Your task to perform on an android device: Go to Wikipedia Image 0: 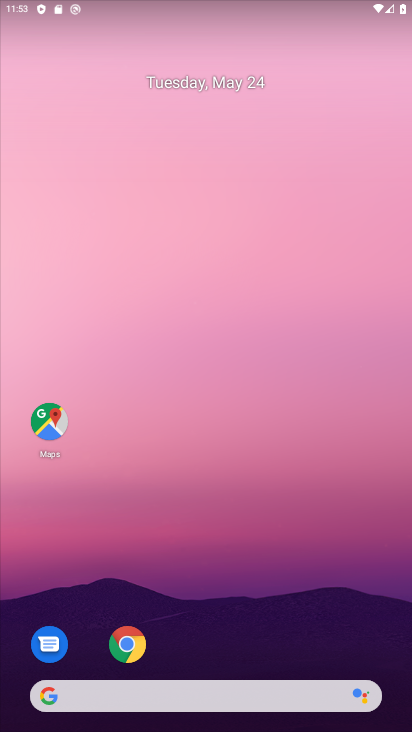
Step 0: drag from (281, 52) to (314, 111)
Your task to perform on an android device: Go to Wikipedia Image 1: 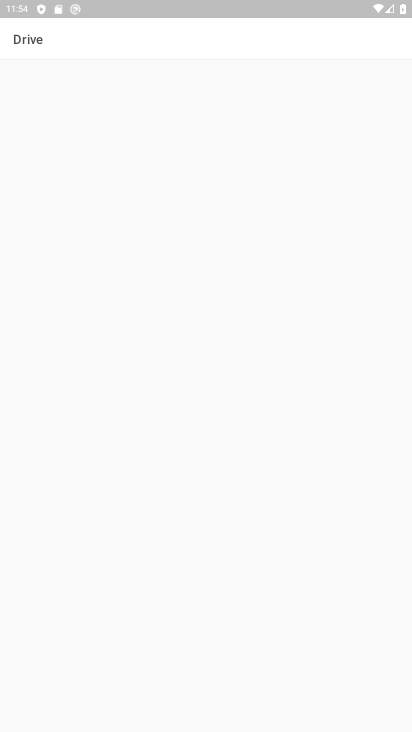
Step 1: press home button
Your task to perform on an android device: Go to Wikipedia Image 2: 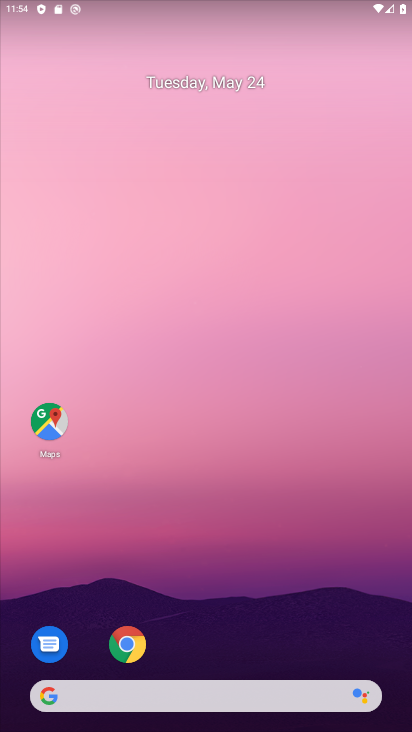
Step 2: click (125, 659)
Your task to perform on an android device: Go to Wikipedia Image 3: 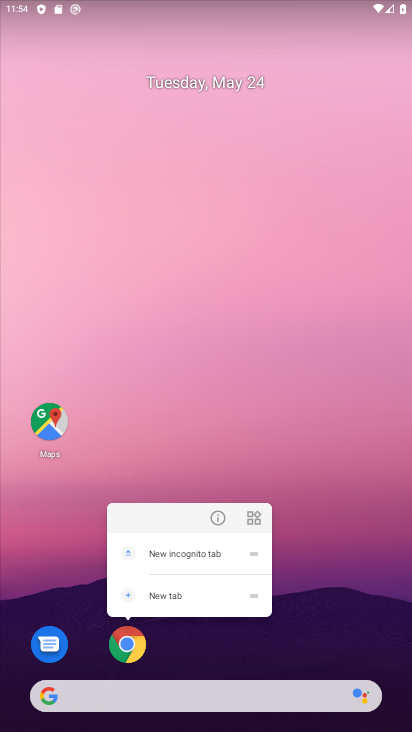
Step 3: click (129, 653)
Your task to perform on an android device: Go to Wikipedia Image 4: 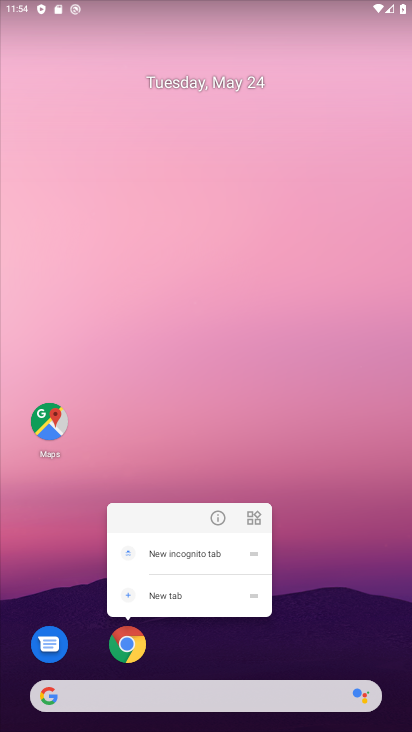
Step 4: click (131, 639)
Your task to perform on an android device: Go to Wikipedia Image 5: 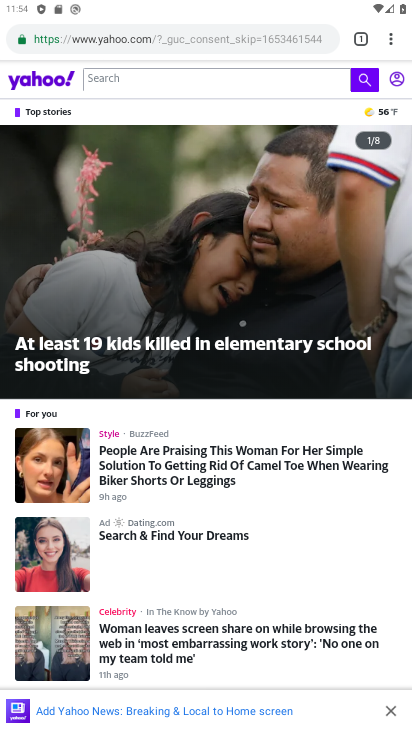
Step 5: drag from (400, 40) to (359, 70)
Your task to perform on an android device: Go to Wikipedia Image 6: 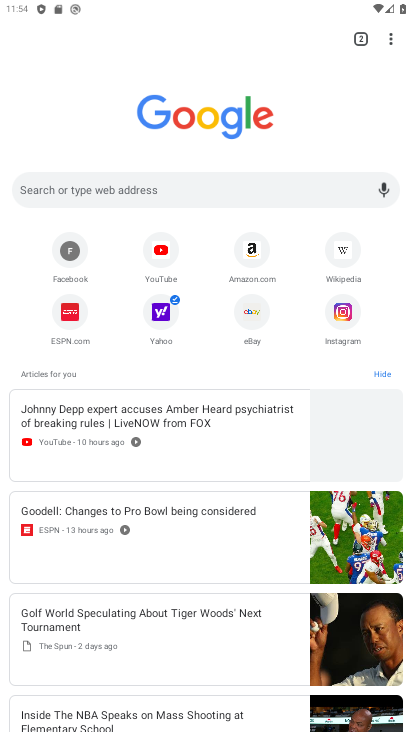
Step 6: click (331, 249)
Your task to perform on an android device: Go to Wikipedia Image 7: 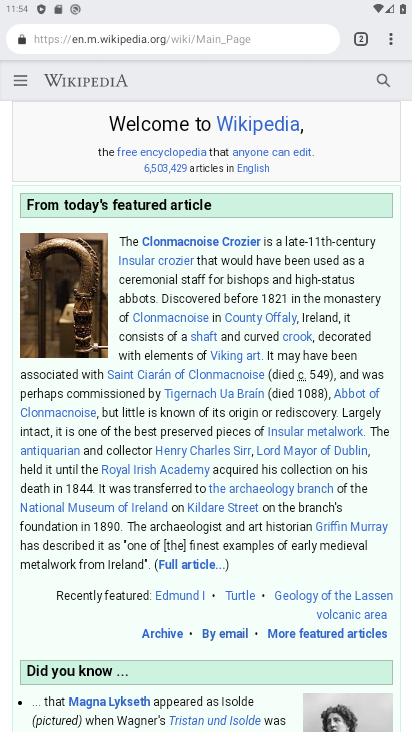
Step 7: task complete